Your task to perform on an android device: Open internet settings Image 0: 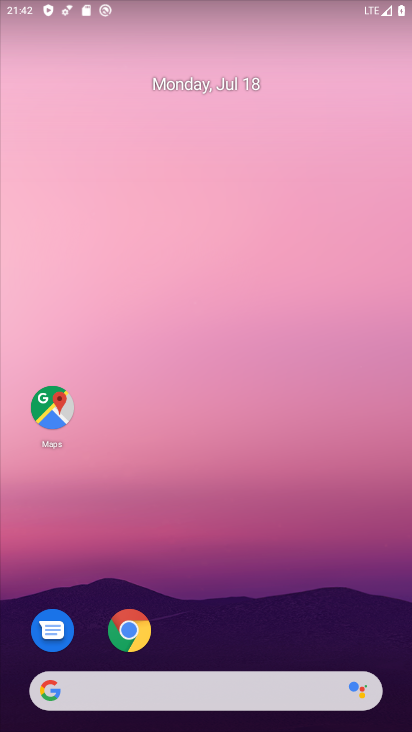
Step 0: drag from (338, 633) to (217, 286)
Your task to perform on an android device: Open internet settings Image 1: 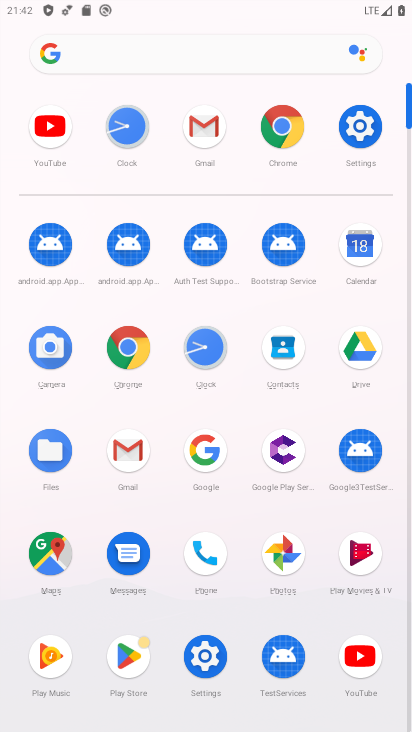
Step 1: click (371, 120)
Your task to perform on an android device: Open internet settings Image 2: 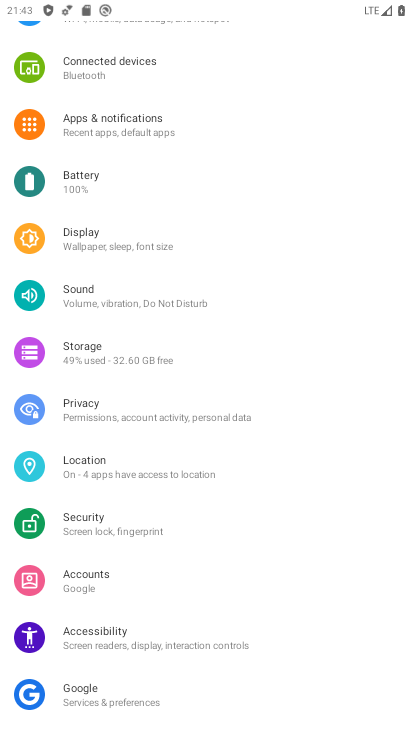
Step 2: drag from (114, 80) to (129, 487)
Your task to perform on an android device: Open internet settings Image 3: 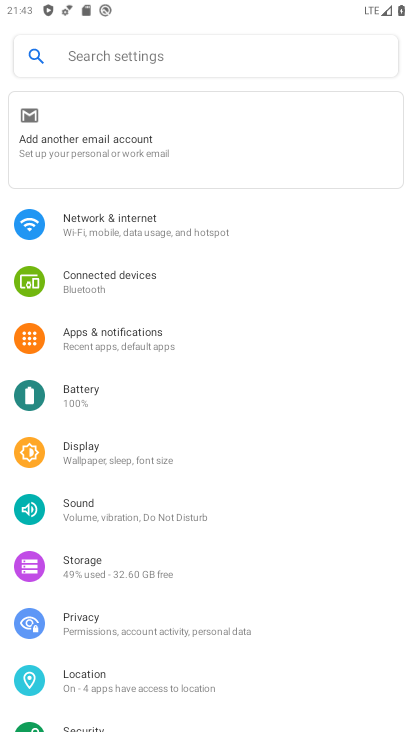
Step 3: click (114, 234)
Your task to perform on an android device: Open internet settings Image 4: 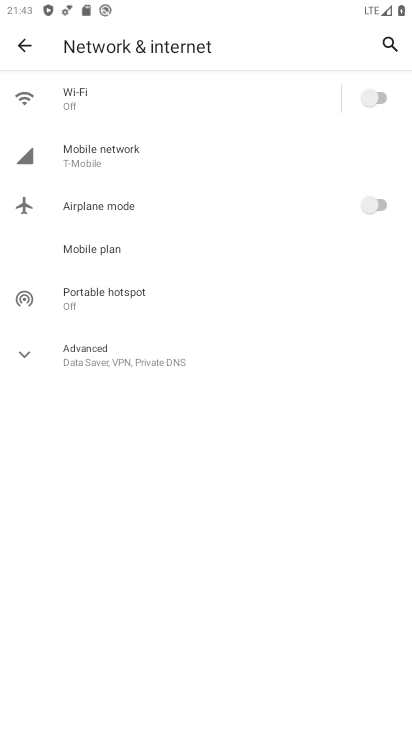
Step 4: task complete